Your task to perform on an android device: set the stopwatch Image 0: 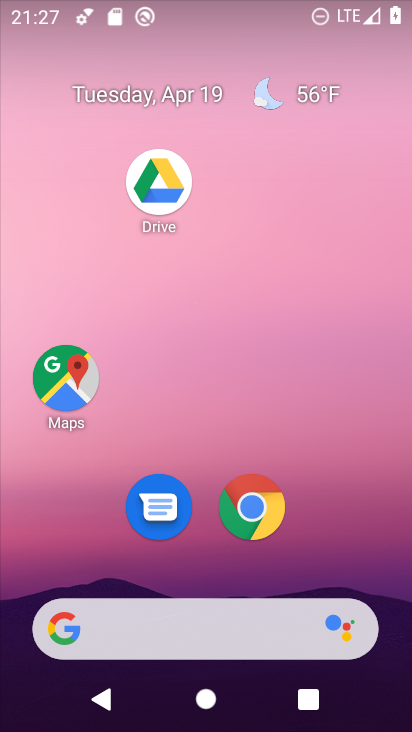
Step 0: drag from (349, 469) to (406, 109)
Your task to perform on an android device: set the stopwatch Image 1: 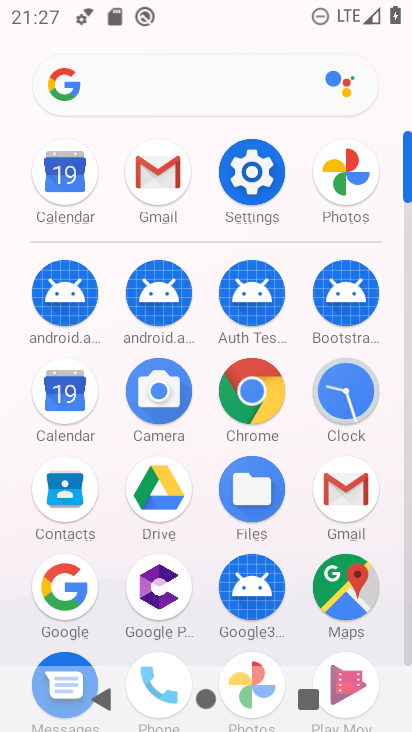
Step 1: click (357, 383)
Your task to perform on an android device: set the stopwatch Image 2: 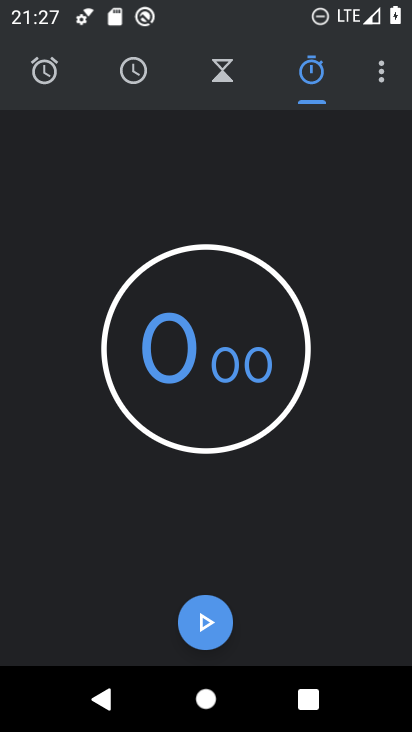
Step 2: click (318, 65)
Your task to perform on an android device: set the stopwatch Image 3: 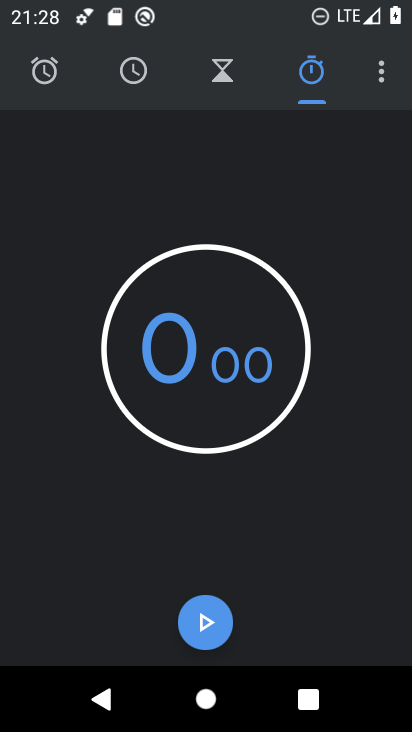
Step 3: task complete